Your task to perform on an android device: turn pop-ups off in chrome Image 0: 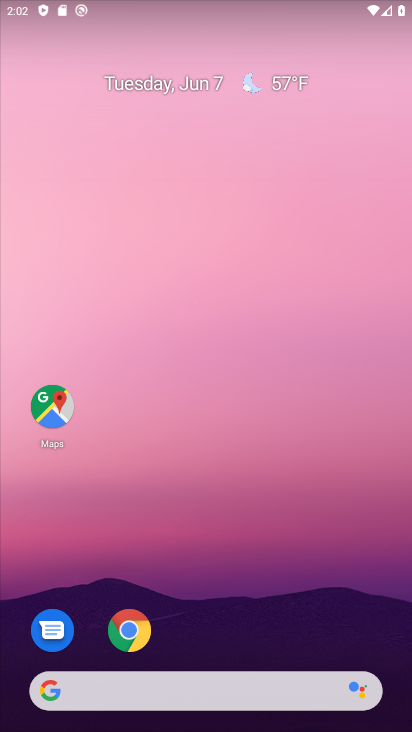
Step 0: click (126, 624)
Your task to perform on an android device: turn pop-ups off in chrome Image 1: 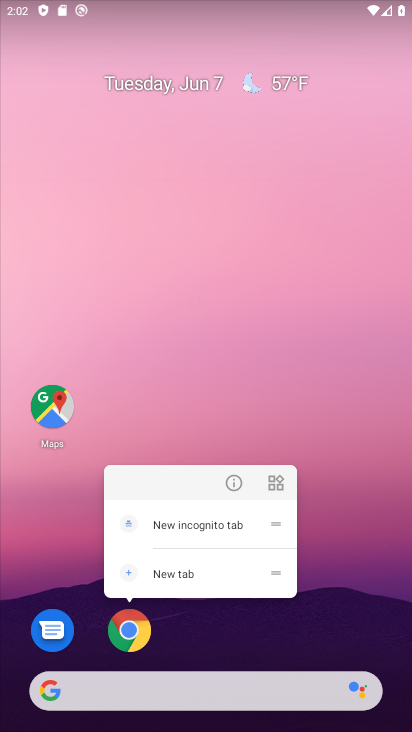
Step 1: click (117, 621)
Your task to perform on an android device: turn pop-ups off in chrome Image 2: 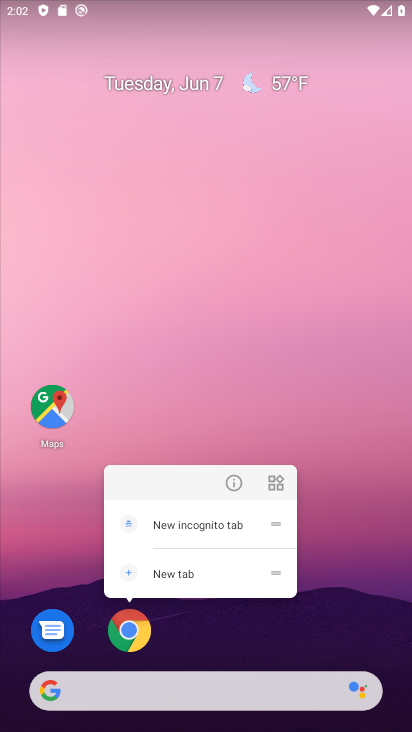
Step 2: click (129, 629)
Your task to perform on an android device: turn pop-ups off in chrome Image 3: 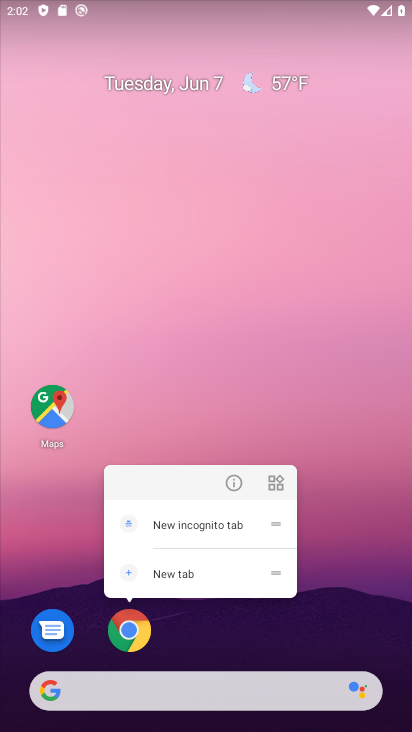
Step 3: click (129, 645)
Your task to perform on an android device: turn pop-ups off in chrome Image 4: 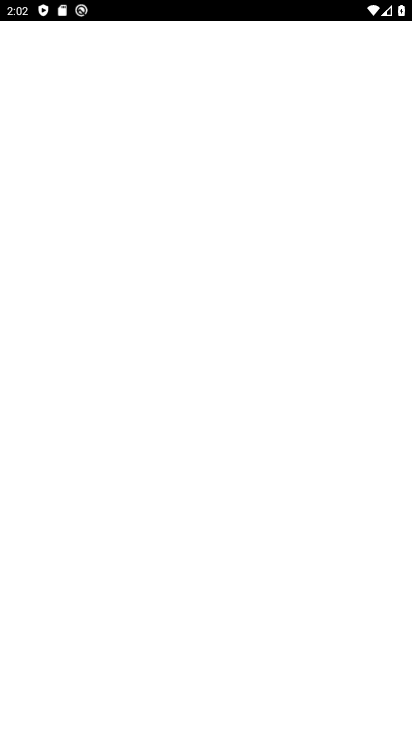
Step 4: click (129, 646)
Your task to perform on an android device: turn pop-ups off in chrome Image 5: 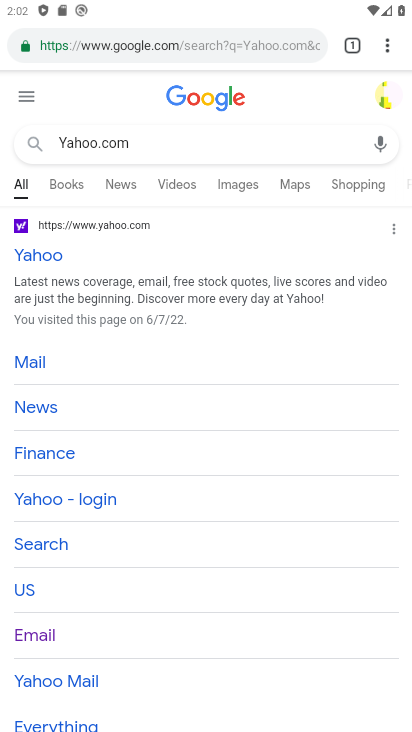
Step 5: click (382, 37)
Your task to perform on an android device: turn pop-ups off in chrome Image 6: 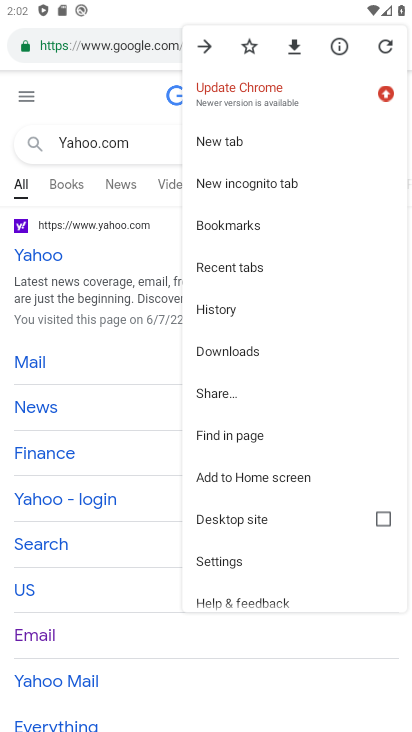
Step 6: click (220, 561)
Your task to perform on an android device: turn pop-ups off in chrome Image 7: 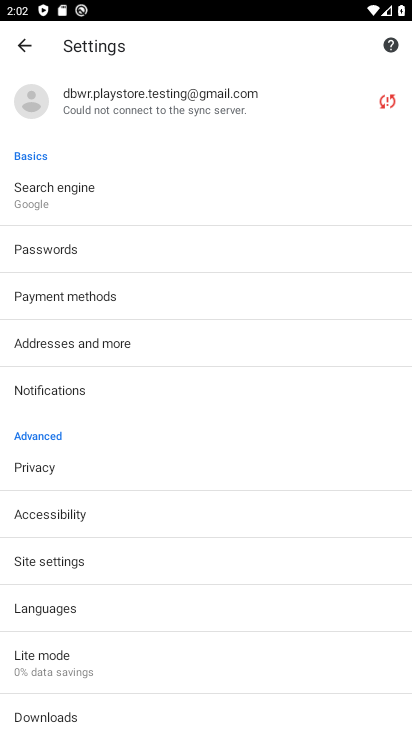
Step 7: click (60, 566)
Your task to perform on an android device: turn pop-ups off in chrome Image 8: 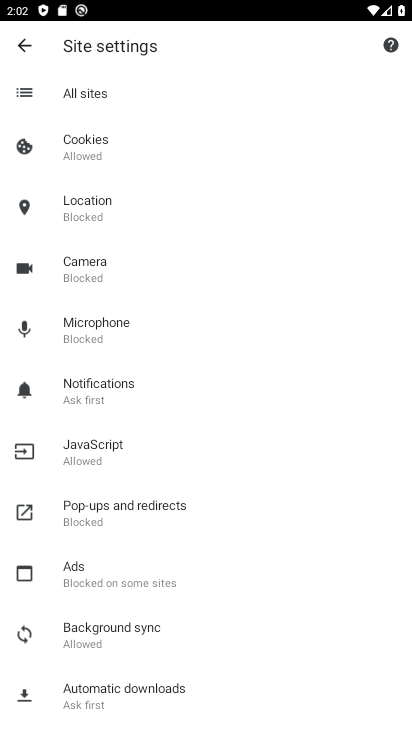
Step 8: click (93, 513)
Your task to perform on an android device: turn pop-ups off in chrome Image 9: 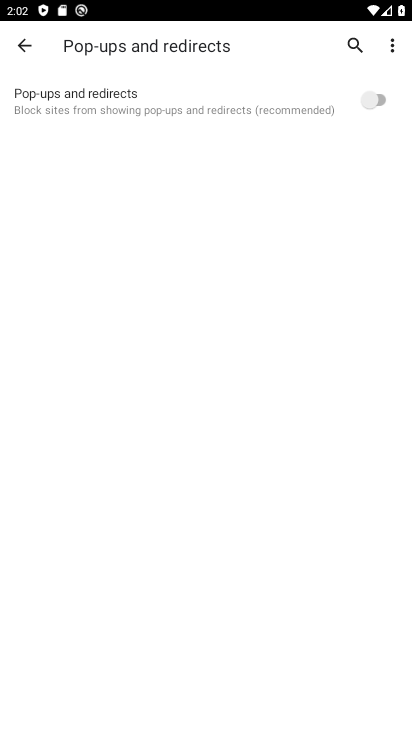
Step 9: task complete